Your task to perform on an android device: Do I have any events this weekend? Image 0: 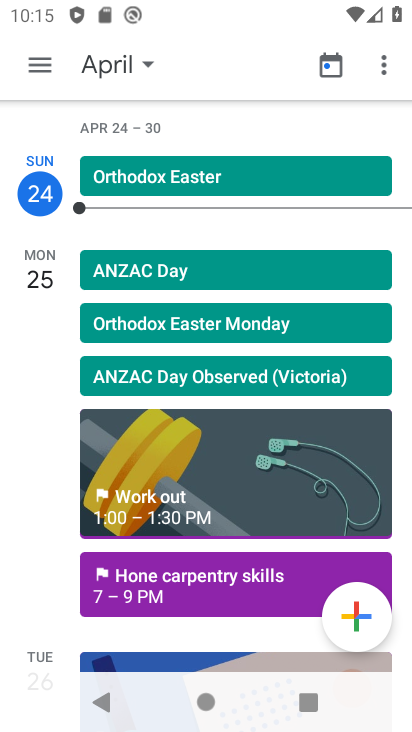
Step 0: drag from (217, 635) to (327, 158)
Your task to perform on an android device: Do I have any events this weekend? Image 1: 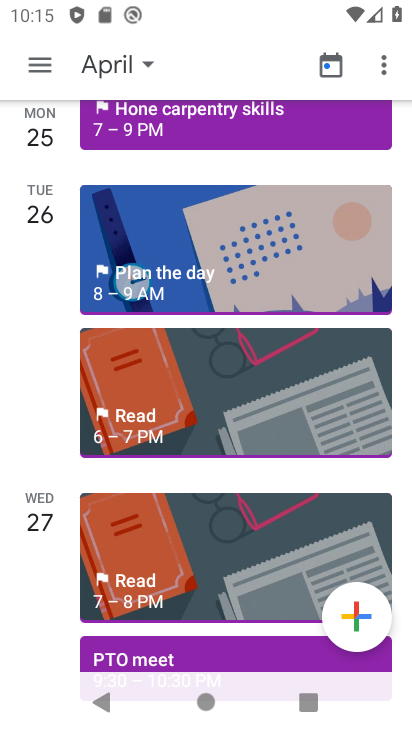
Step 1: drag from (231, 594) to (341, 82)
Your task to perform on an android device: Do I have any events this weekend? Image 2: 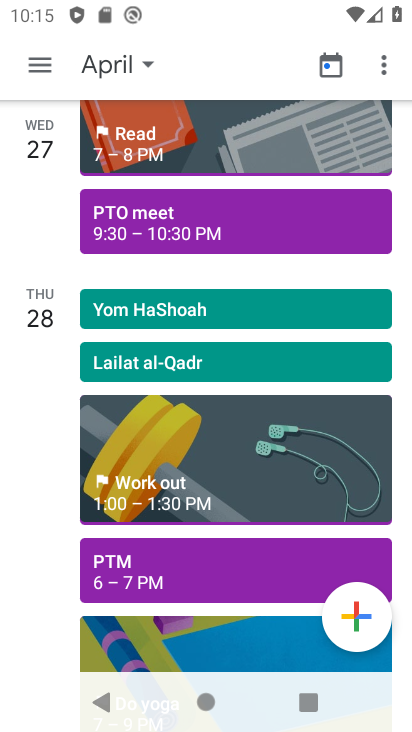
Step 2: drag from (203, 610) to (344, 53)
Your task to perform on an android device: Do I have any events this weekend? Image 3: 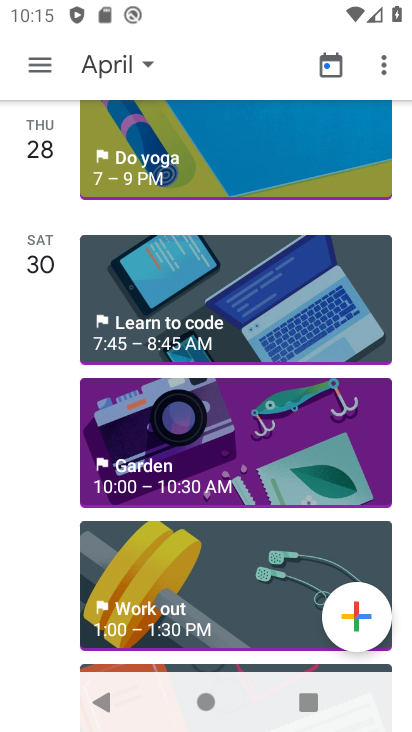
Step 3: click (147, 564)
Your task to perform on an android device: Do I have any events this weekend? Image 4: 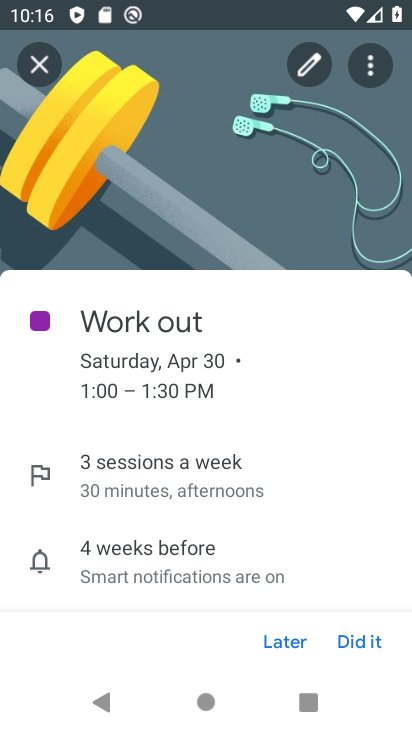
Step 4: task complete